Your task to perform on an android device: Search for pizza restaurants on Maps Image 0: 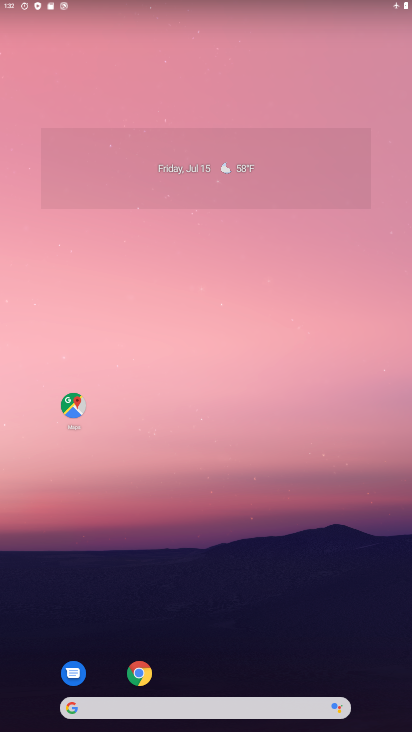
Step 0: drag from (235, 664) to (262, 147)
Your task to perform on an android device: Search for pizza restaurants on Maps Image 1: 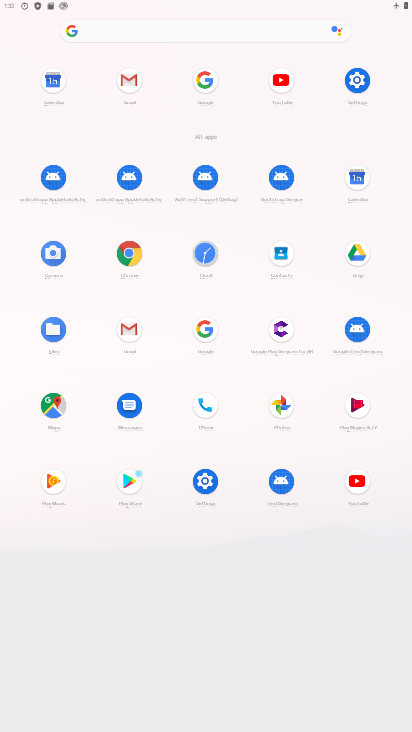
Step 1: click (50, 403)
Your task to perform on an android device: Search for pizza restaurants on Maps Image 2: 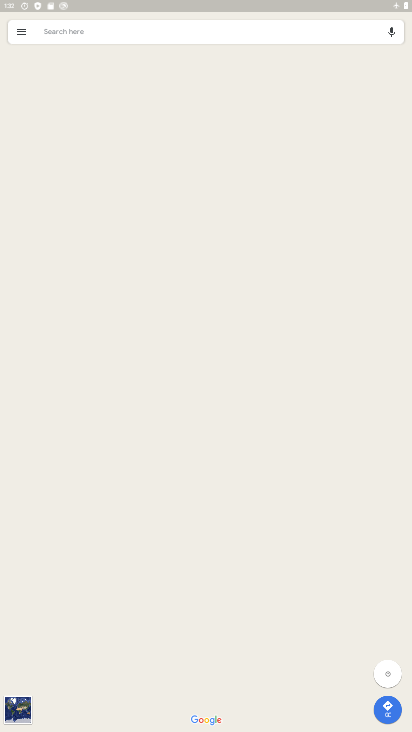
Step 2: click (235, 34)
Your task to perform on an android device: Search for pizza restaurants on Maps Image 3: 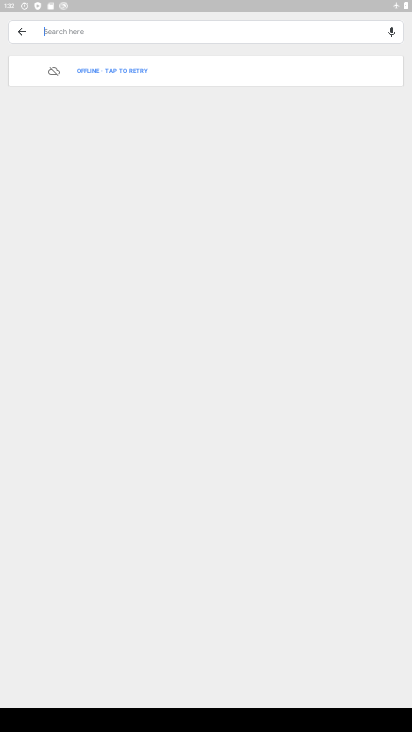
Step 3: type "pizza restaurents"
Your task to perform on an android device: Search for pizza restaurants on Maps Image 4: 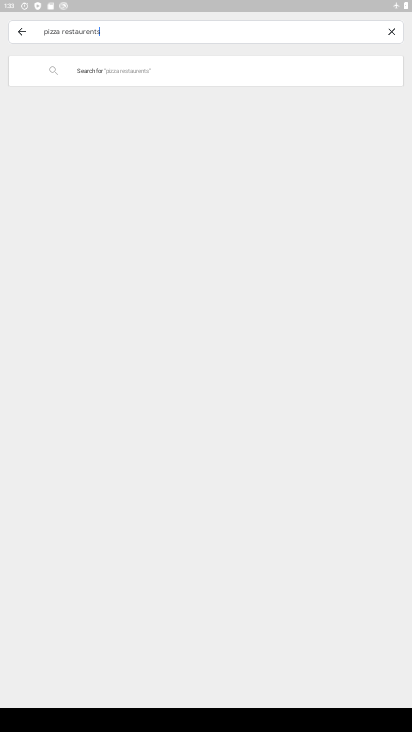
Step 4: task complete